Your task to perform on an android device: open app "Microsoft Excel" (install if not already installed) and enter user name: "kidnappers@icloud.com" and password: "Bessemerizes" Image 0: 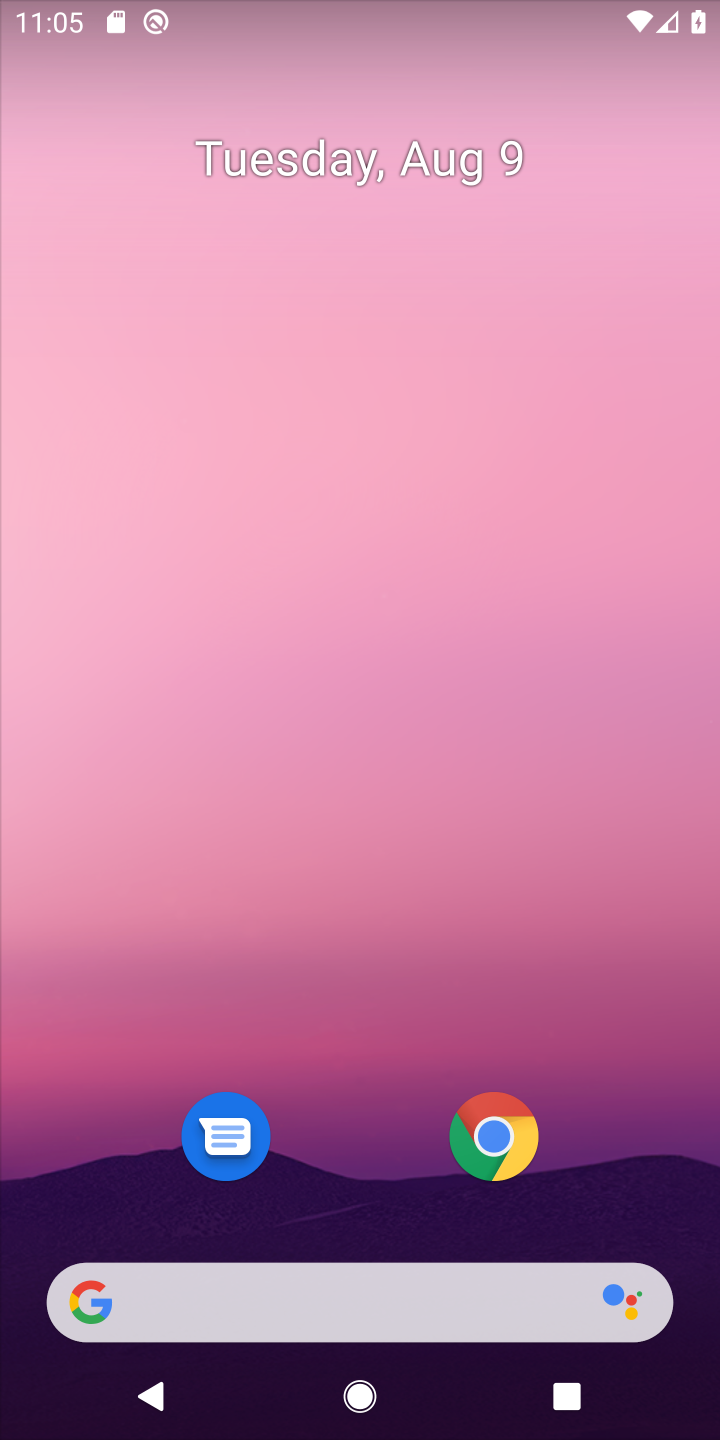
Step 0: drag from (347, 1082) to (414, 426)
Your task to perform on an android device: open app "Microsoft Excel" (install if not already installed) and enter user name: "kidnappers@icloud.com" and password: "Bessemerizes" Image 1: 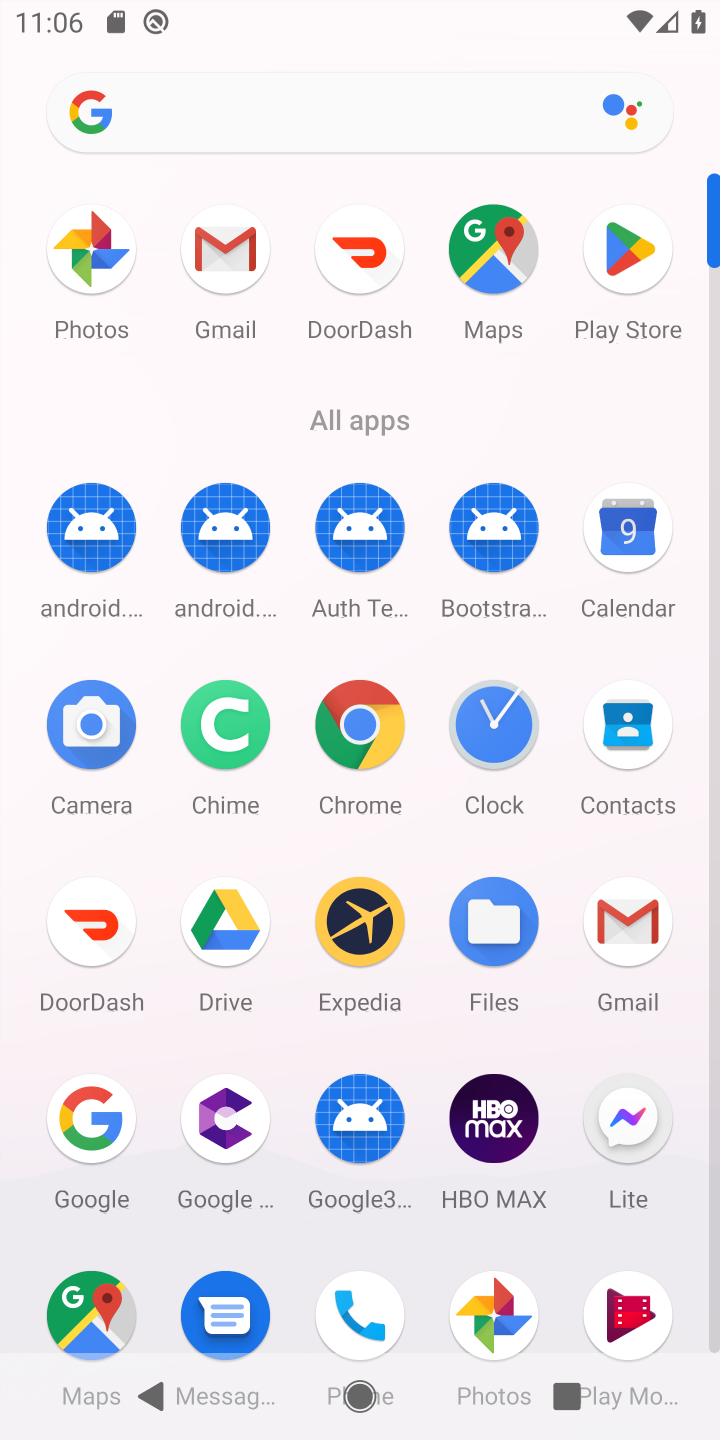
Step 1: click (629, 274)
Your task to perform on an android device: open app "Microsoft Excel" (install if not already installed) and enter user name: "kidnappers@icloud.com" and password: "Bessemerizes" Image 2: 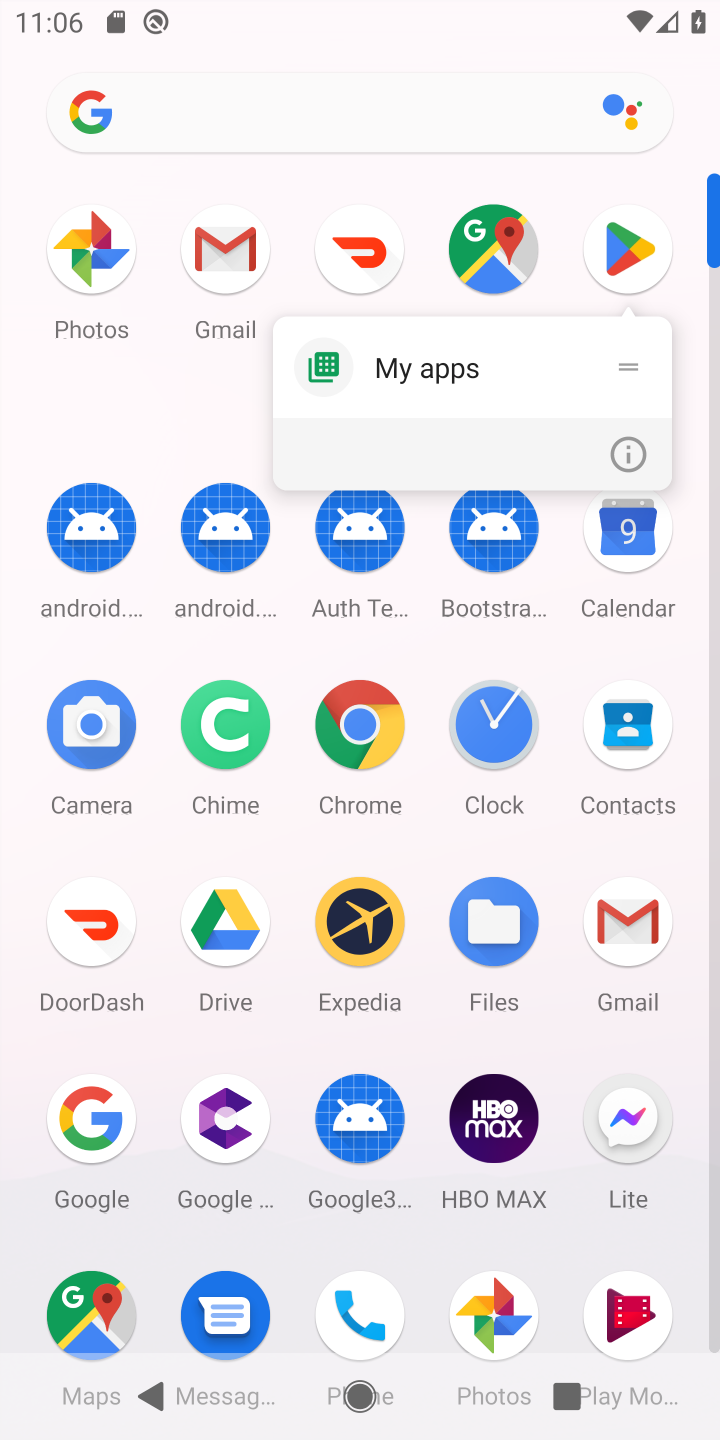
Step 2: click (629, 274)
Your task to perform on an android device: open app "Microsoft Excel" (install if not already installed) and enter user name: "kidnappers@icloud.com" and password: "Bessemerizes" Image 3: 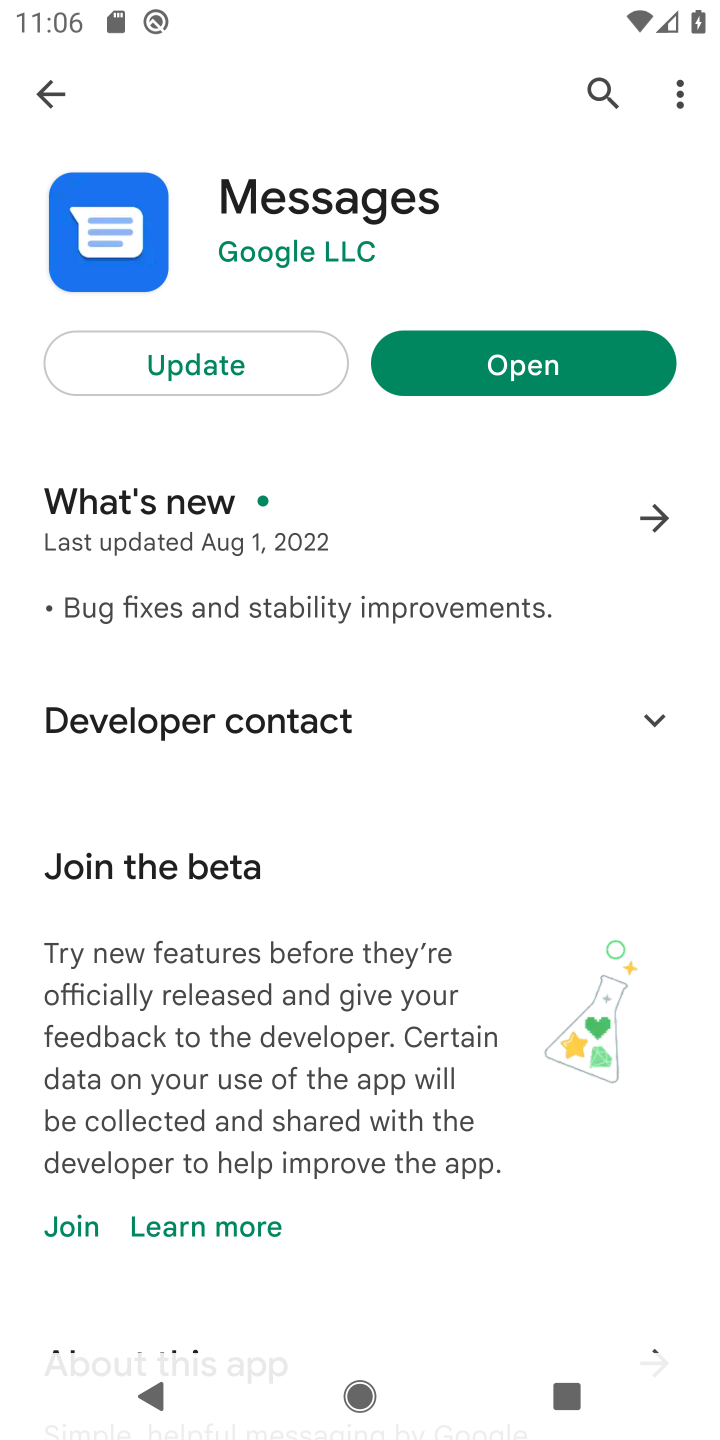
Step 3: click (49, 103)
Your task to perform on an android device: open app "Microsoft Excel" (install if not already installed) and enter user name: "kidnappers@icloud.com" and password: "Bessemerizes" Image 4: 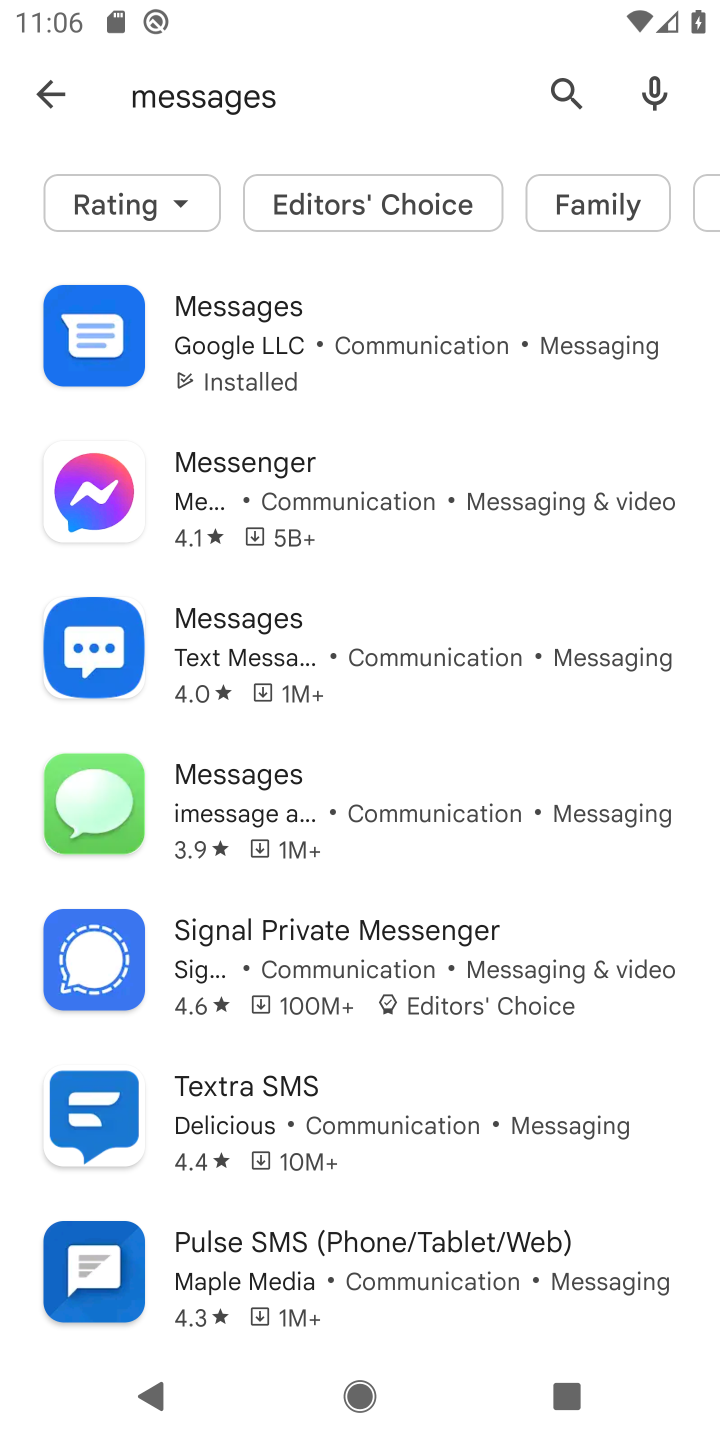
Step 4: click (221, 104)
Your task to perform on an android device: open app "Microsoft Excel" (install if not already installed) and enter user name: "kidnappers@icloud.com" and password: "Bessemerizes" Image 5: 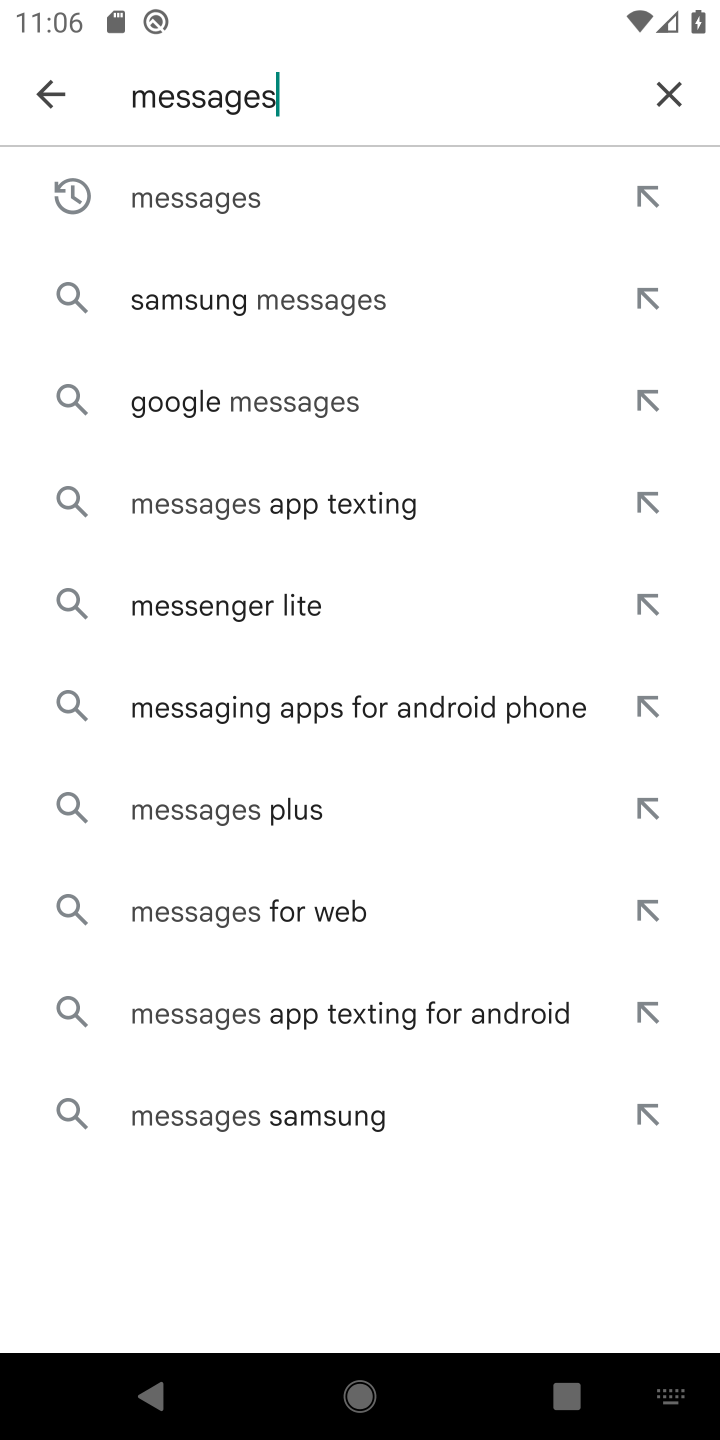
Step 5: click (671, 87)
Your task to perform on an android device: open app "Microsoft Excel" (install if not already installed) and enter user name: "kidnappers@icloud.com" and password: "Bessemerizes" Image 6: 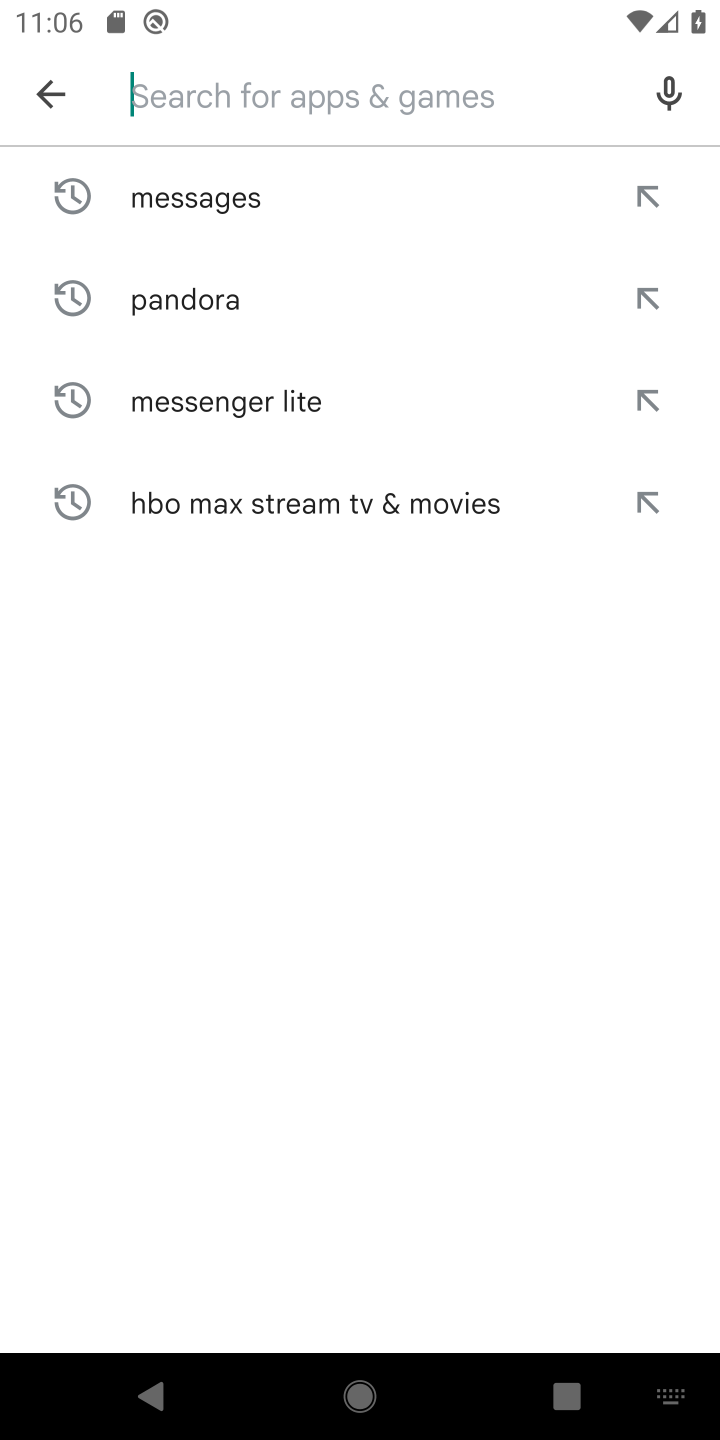
Step 6: type "microsoft Excel"
Your task to perform on an android device: open app "Microsoft Excel" (install if not already installed) and enter user name: "kidnappers@icloud.com" and password: "Bessemerizes" Image 7: 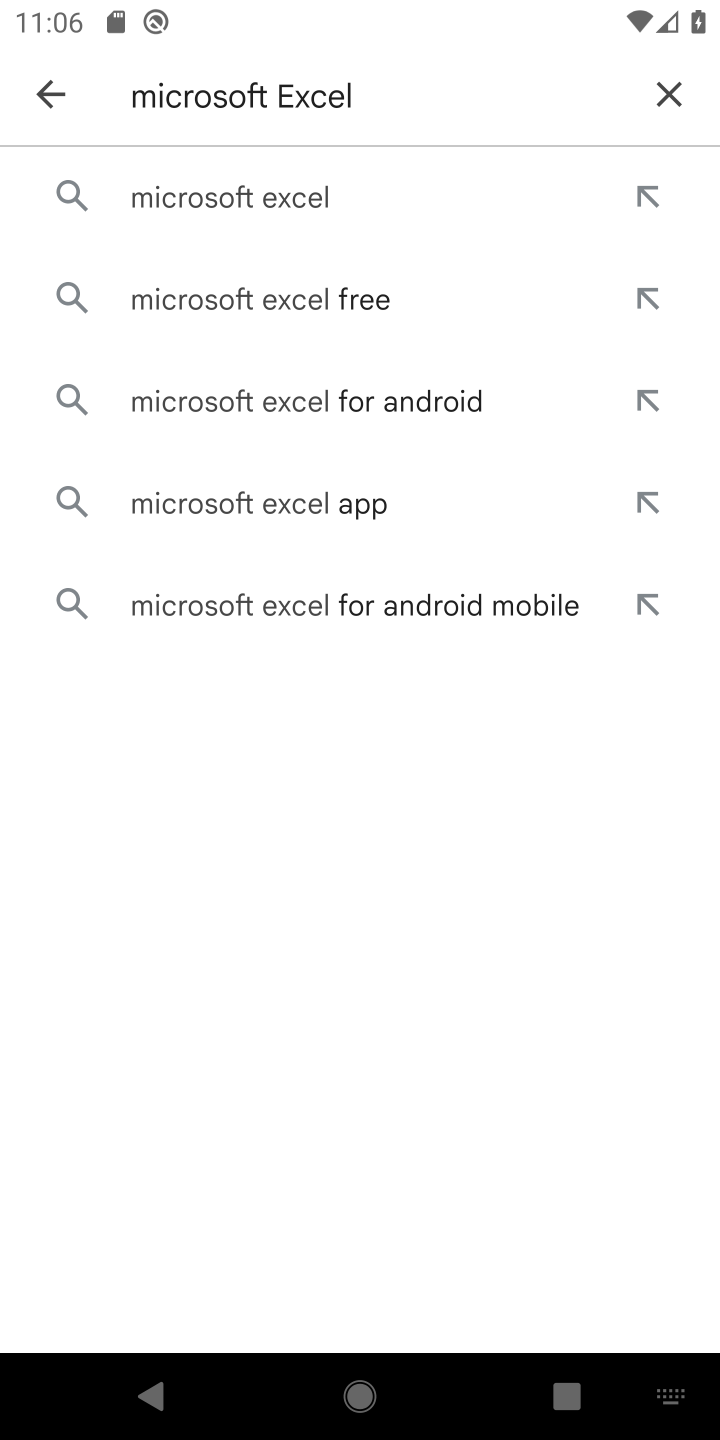
Step 7: click (298, 200)
Your task to perform on an android device: open app "Microsoft Excel" (install if not already installed) and enter user name: "kidnappers@icloud.com" and password: "Bessemerizes" Image 8: 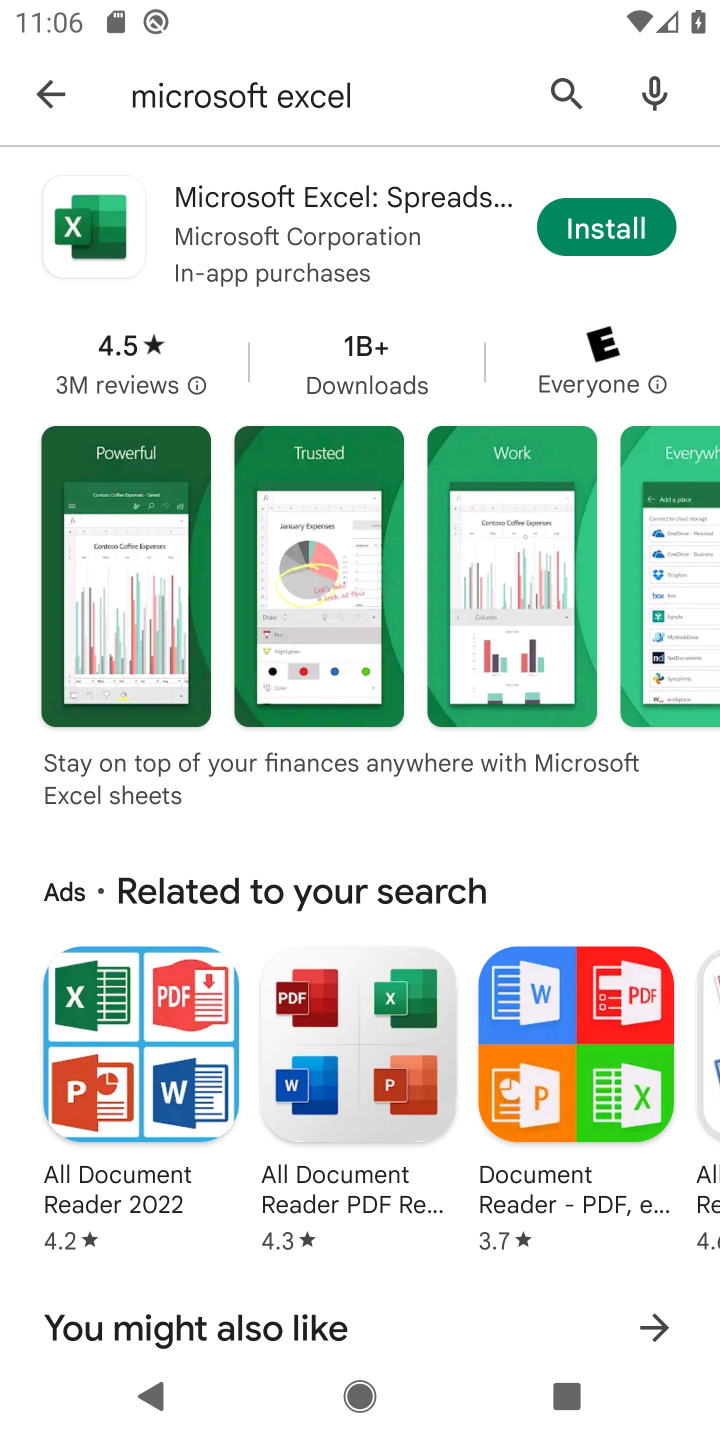
Step 8: click (598, 217)
Your task to perform on an android device: open app "Microsoft Excel" (install if not already installed) and enter user name: "kidnappers@icloud.com" and password: "Bessemerizes" Image 9: 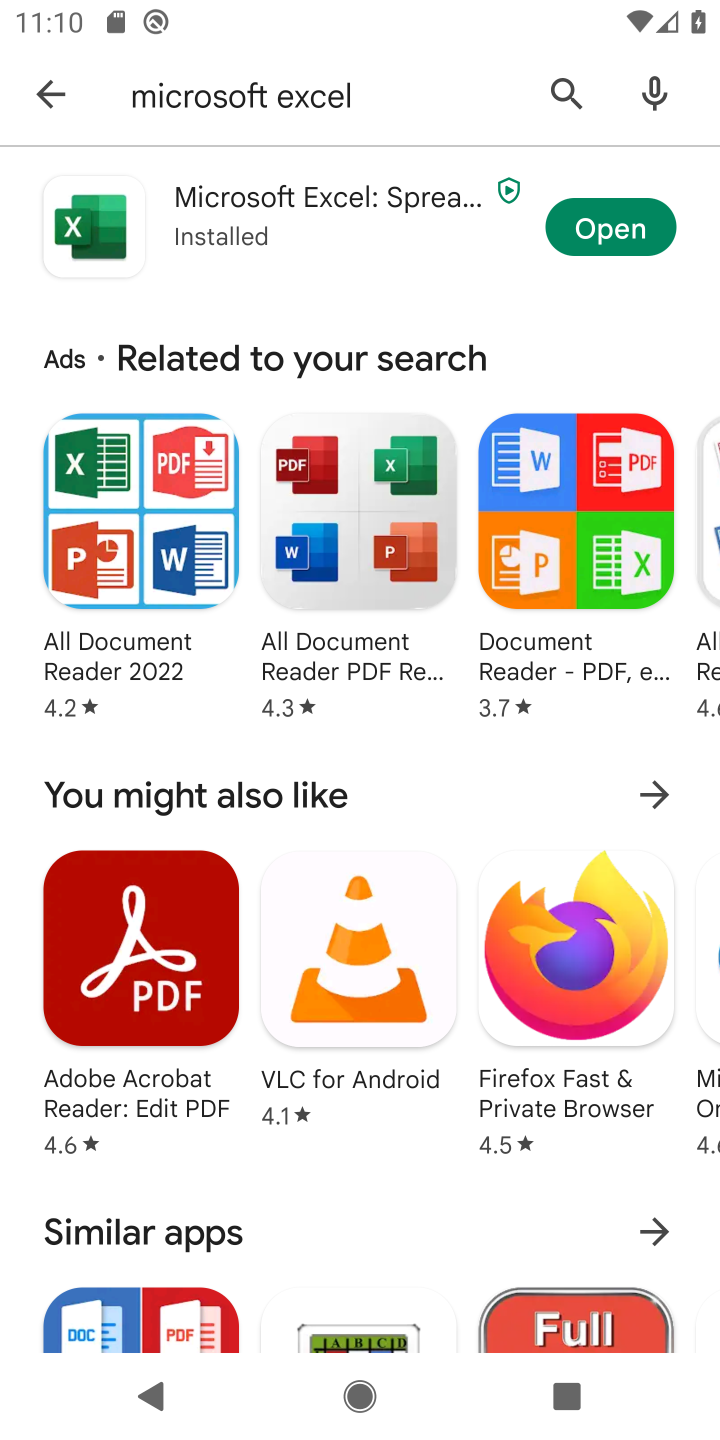
Step 9: click (589, 238)
Your task to perform on an android device: open app "Microsoft Excel" (install if not already installed) and enter user name: "kidnappers@icloud.com" and password: "Bessemerizes" Image 10: 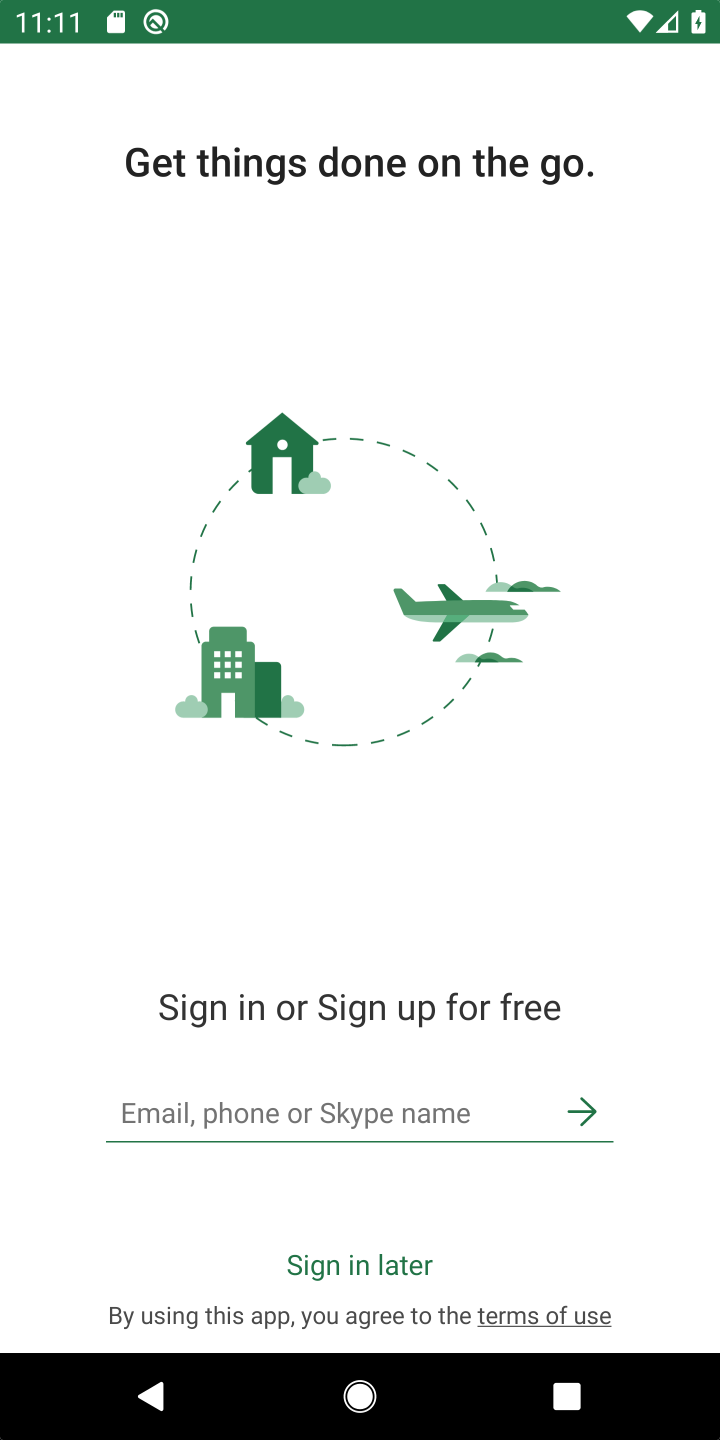
Step 10: click (403, 1098)
Your task to perform on an android device: open app "Microsoft Excel" (install if not already installed) and enter user name: "kidnappers@icloud.com" and password: "Bessemerizes" Image 11: 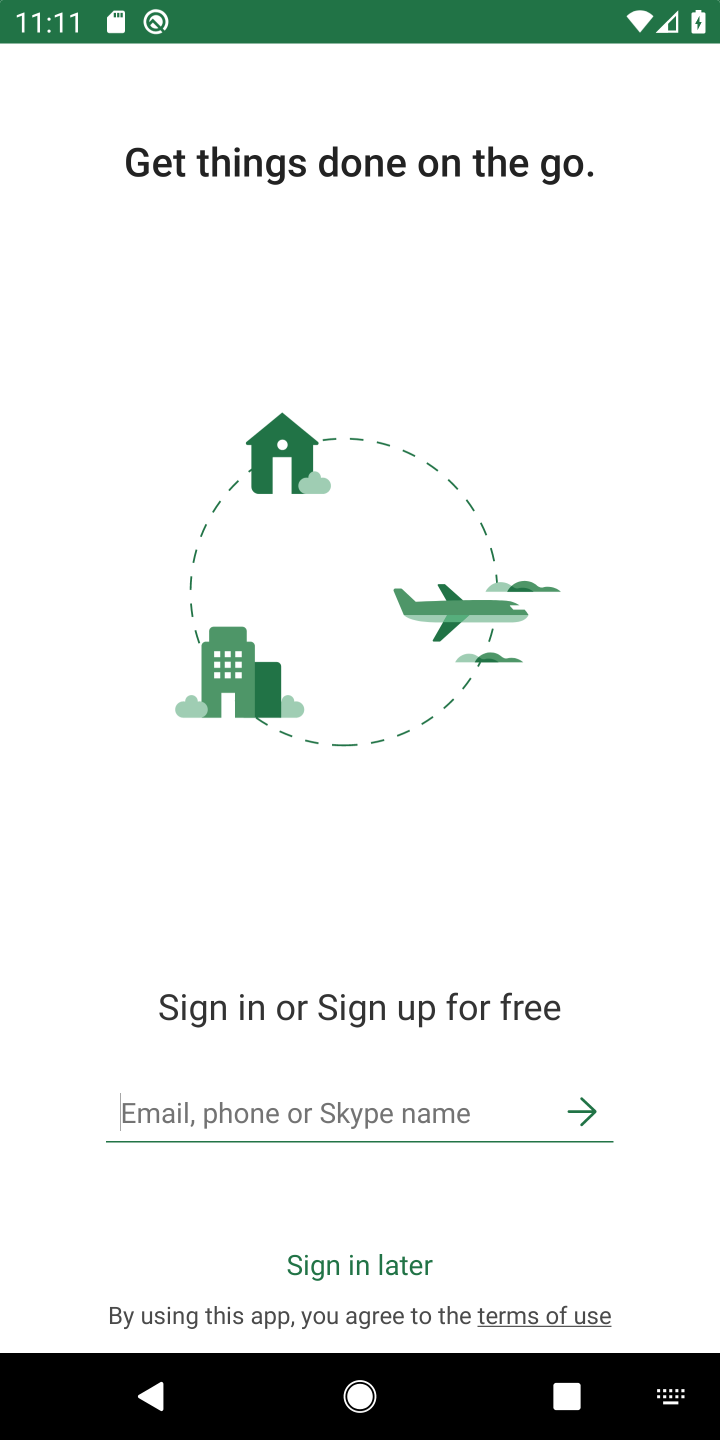
Step 11: type "kidnappers@icloud.com"
Your task to perform on an android device: open app "Microsoft Excel" (install if not already installed) and enter user name: "kidnappers@icloud.com" and password: "Bessemerizes" Image 12: 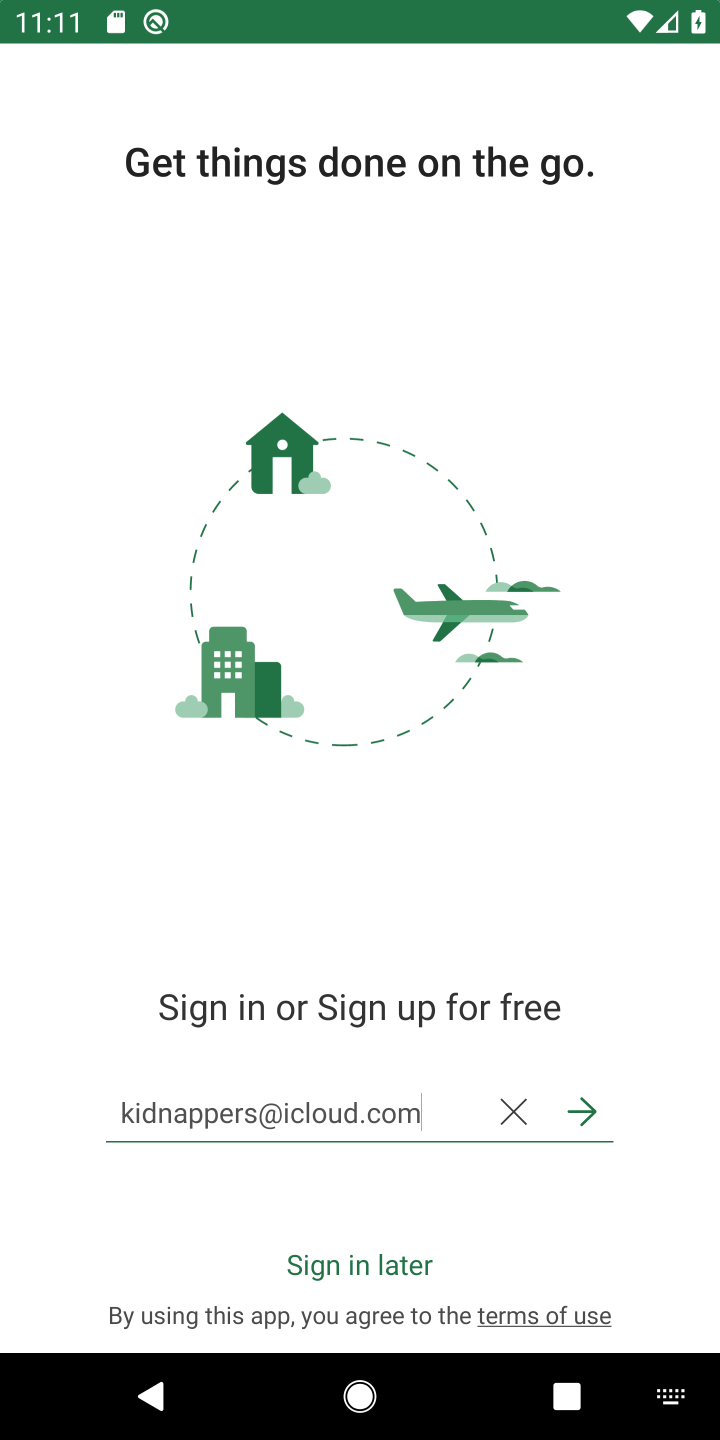
Step 12: click (587, 1111)
Your task to perform on an android device: open app "Microsoft Excel" (install if not already installed) and enter user name: "kidnappers@icloud.com" and password: "Bessemerizes" Image 13: 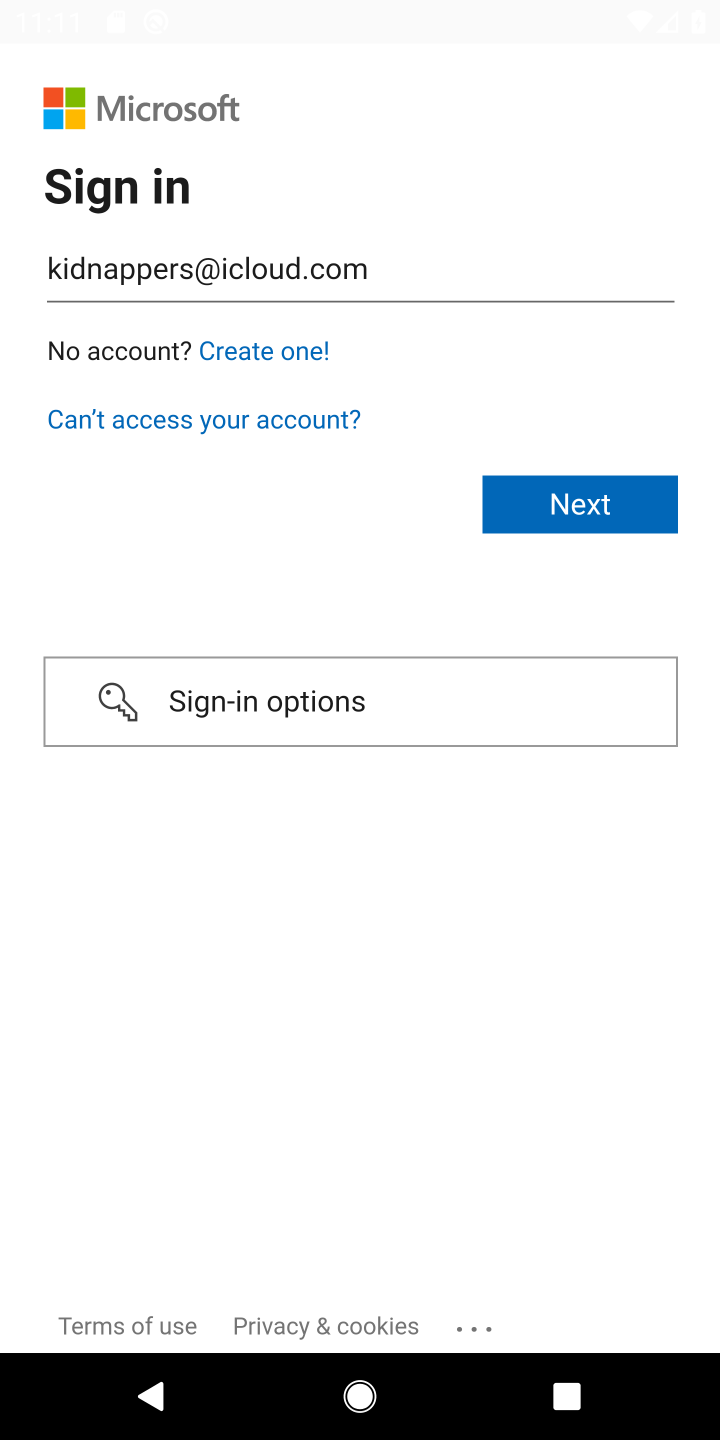
Step 13: click (564, 500)
Your task to perform on an android device: open app "Microsoft Excel" (install if not already installed) and enter user name: "kidnappers@icloud.com" and password: "Bessemerizes" Image 14: 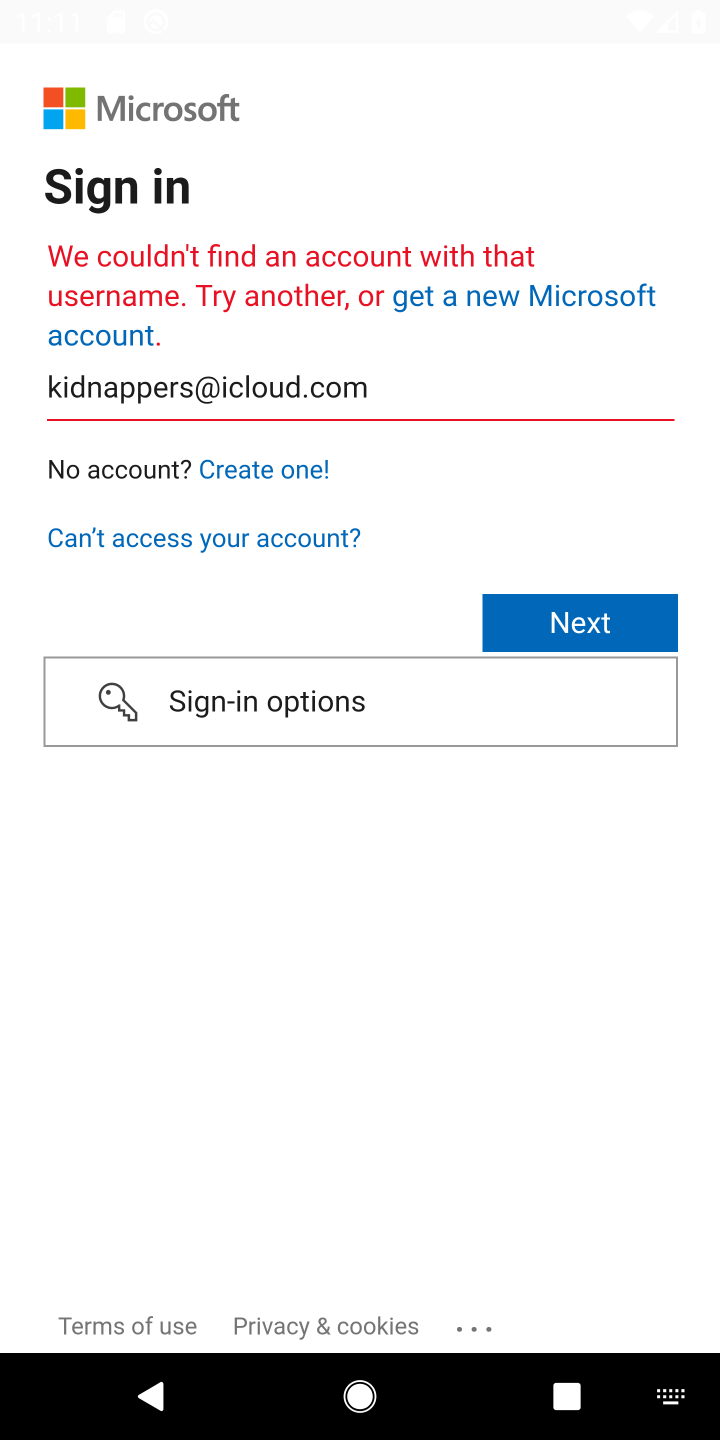
Step 14: task complete